Your task to perform on an android device: Show me recent news Image 0: 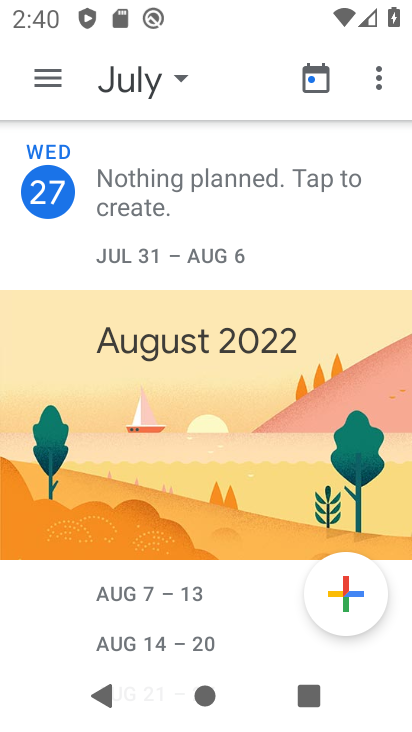
Step 0: press back button
Your task to perform on an android device: Show me recent news Image 1: 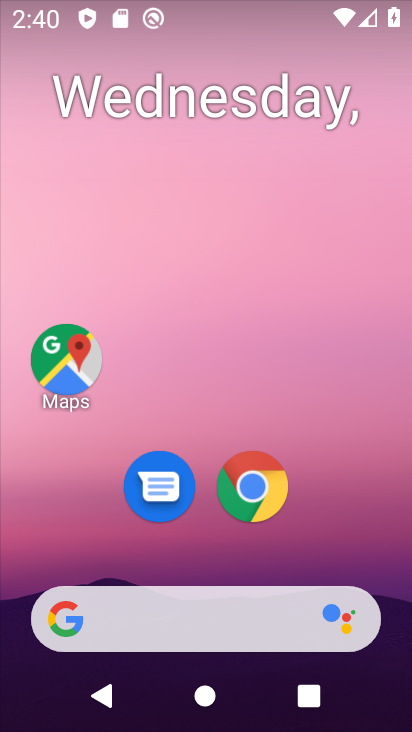
Step 1: click (225, 616)
Your task to perform on an android device: Show me recent news Image 2: 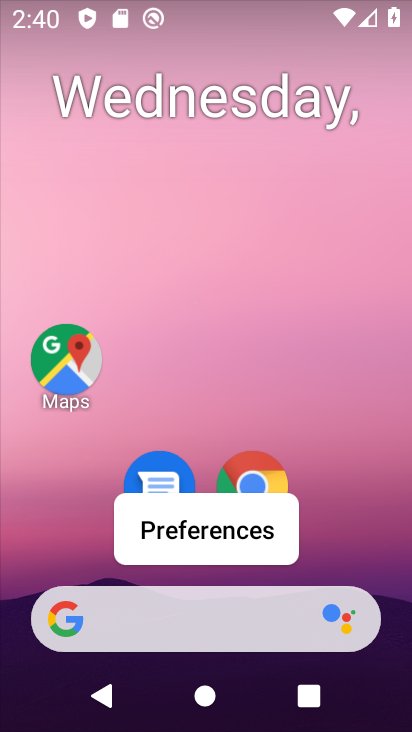
Step 2: click (229, 617)
Your task to perform on an android device: Show me recent news Image 3: 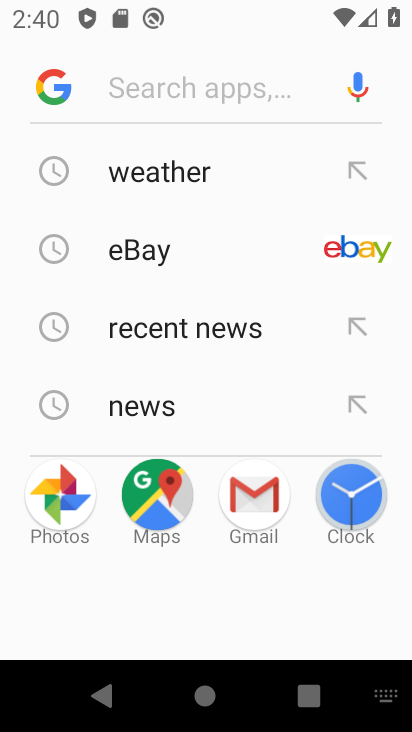
Step 3: click (172, 327)
Your task to perform on an android device: Show me recent news Image 4: 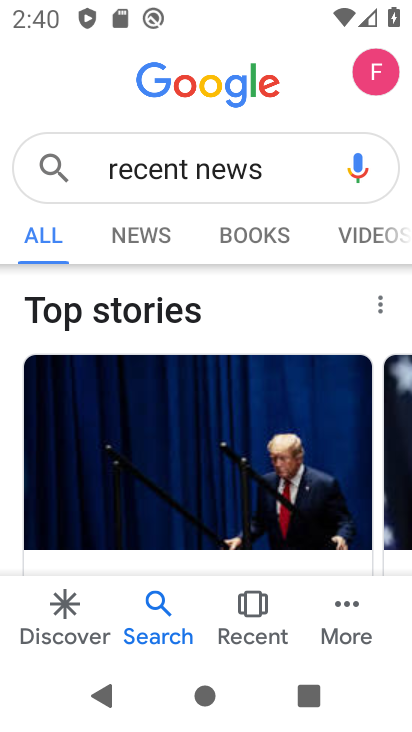
Step 4: task complete